Your task to perform on an android device: Open display settings Image 0: 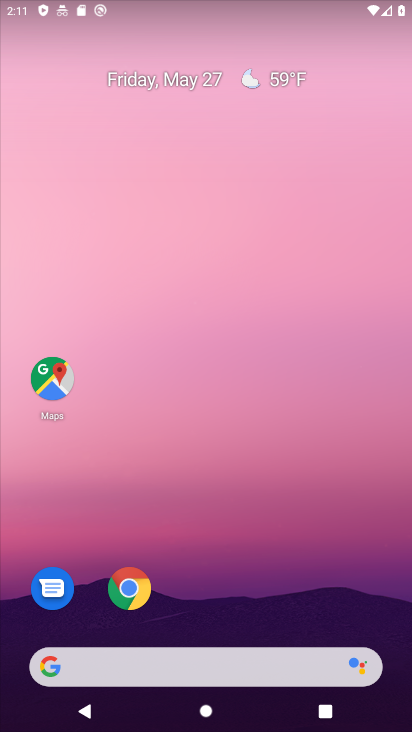
Step 0: drag from (241, 235) to (208, 91)
Your task to perform on an android device: Open display settings Image 1: 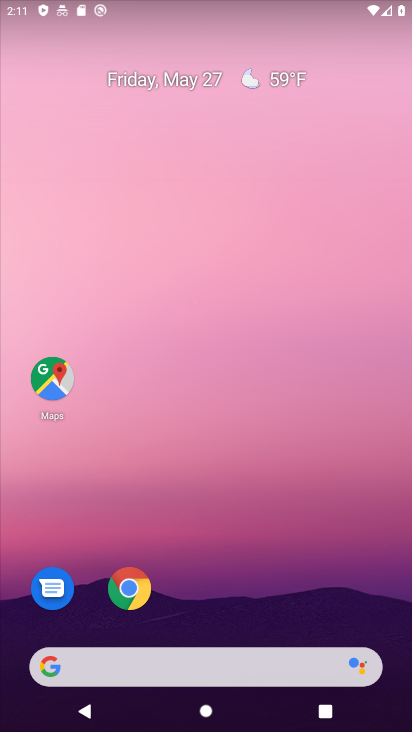
Step 1: drag from (256, 685) to (203, 71)
Your task to perform on an android device: Open display settings Image 2: 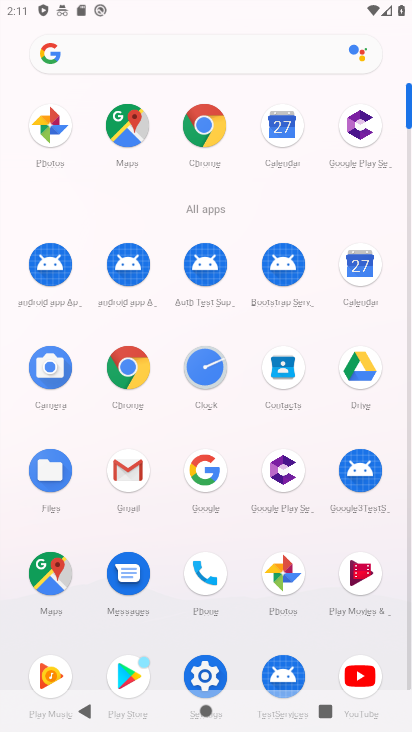
Step 2: drag from (278, 510) to (220, 110)
Your task to perform on an android device: Open display settings Image 3: 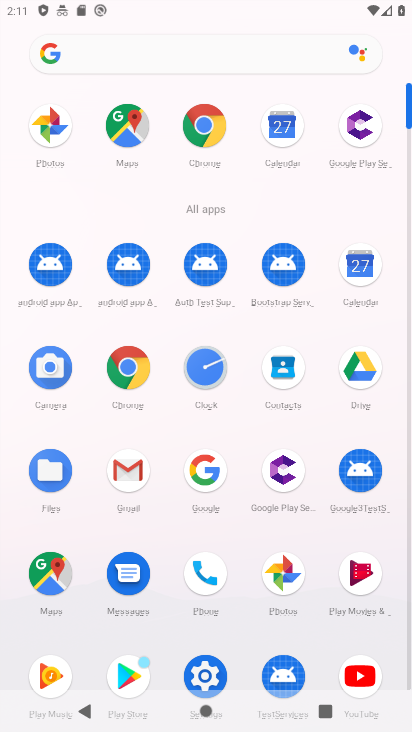
Step 3: drag from (257, 504) to (271, 123)
Your task to perform on an android device: Open display settings Image 4: 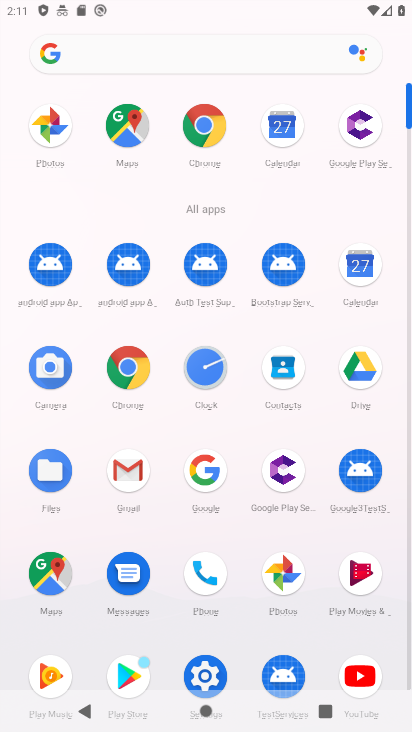
Step 4: click (246, 123)
Your task to perform on an android device: Open display settings Image 5: 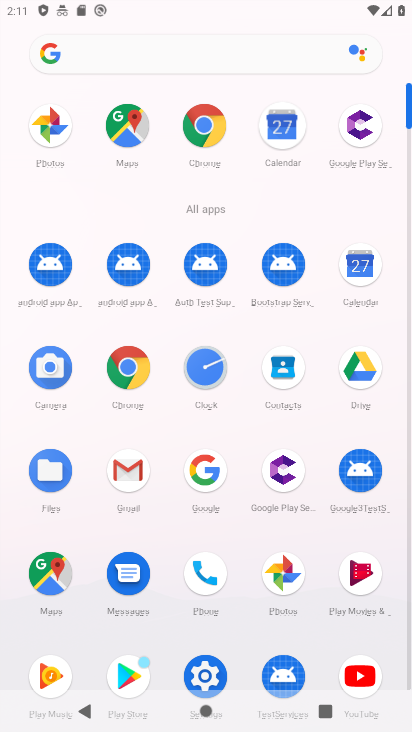
Step 5: drag from (228, 387) to (210, 208)
Your task to perform on an android device: Open display settings Image 6: 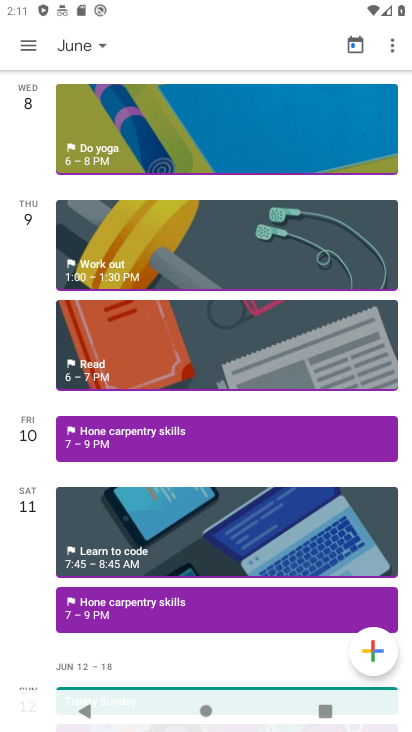
Step 6: press back button
Your task to perform on an android device: Open display settings Image 7: 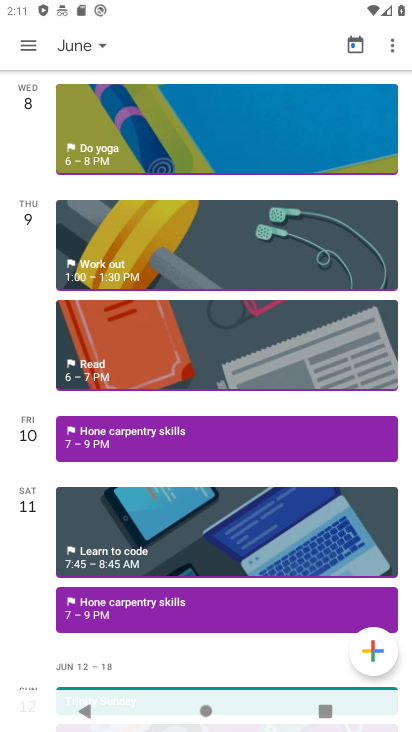
Step 7: press back button
Your task to perform on an android device: Open display settings Image 8: 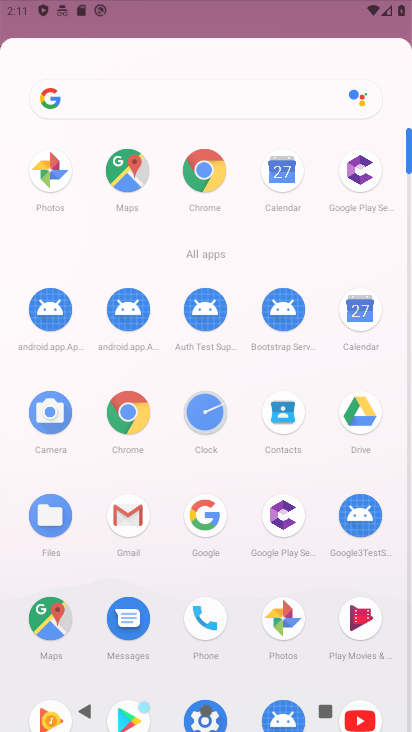
Step 8: press back button
Your task to perform on an android device: Open display settings Image 9: 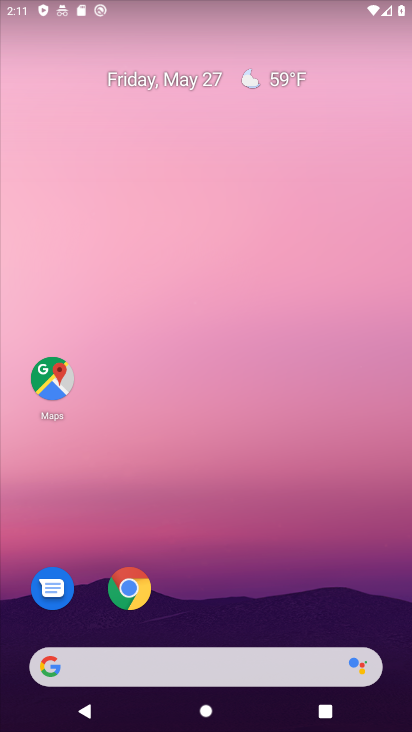
Step 9: drag from (250, 657) to (155, 19)
Your task to perform on an android device: Open display settings Image 10: 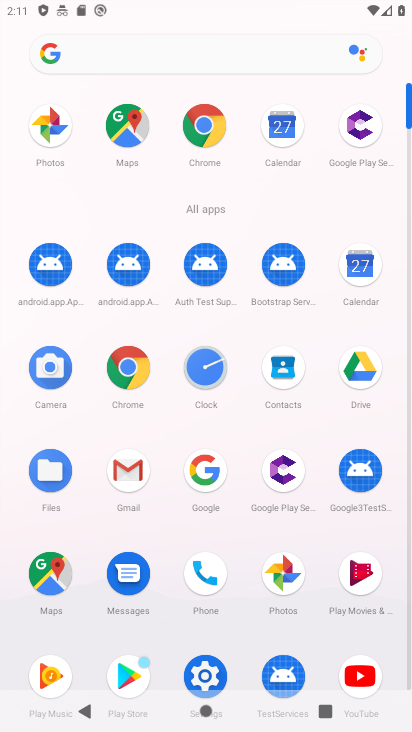
Step 10: click (206, 660)
Your task to perform on an android device: Open display settings Image 11: 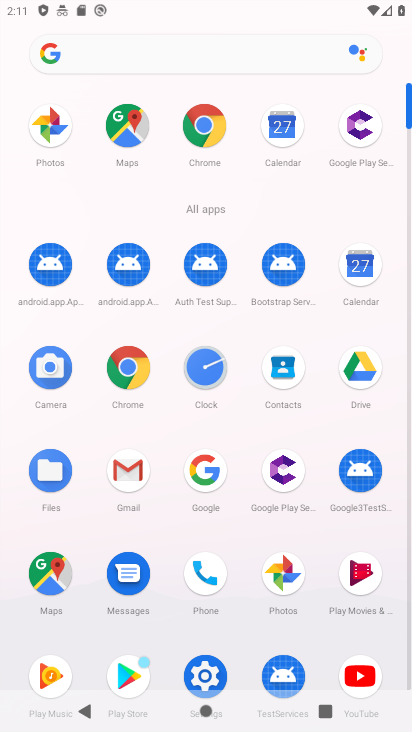
Step 11: click (206, 660)
Your task to perform on an android device: Open display settings Image 12: 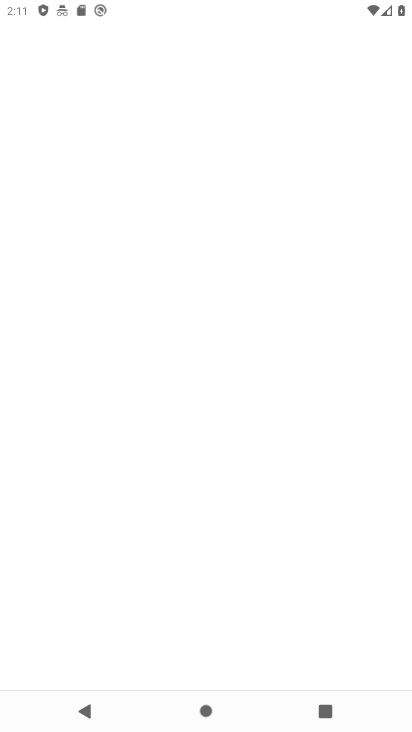
Step 12: click (205, 660)
Your task to perform on an android device: Open display settings Image 13: 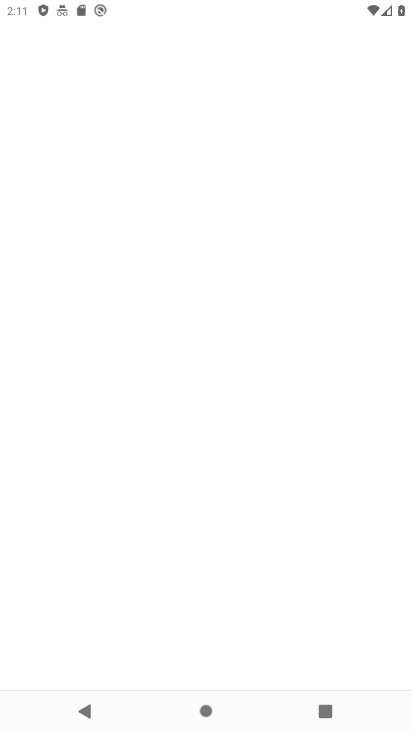
Step 13: click (208, 662)
Your task to perform on an android device: Open display settings Image 14: 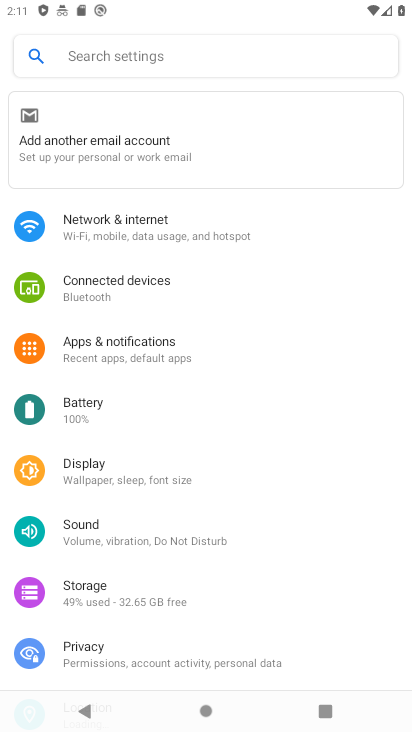
Step 14: drag from (120, 562) to (144, 336)
Your task to perform on an android device: Open display settings Image 15: 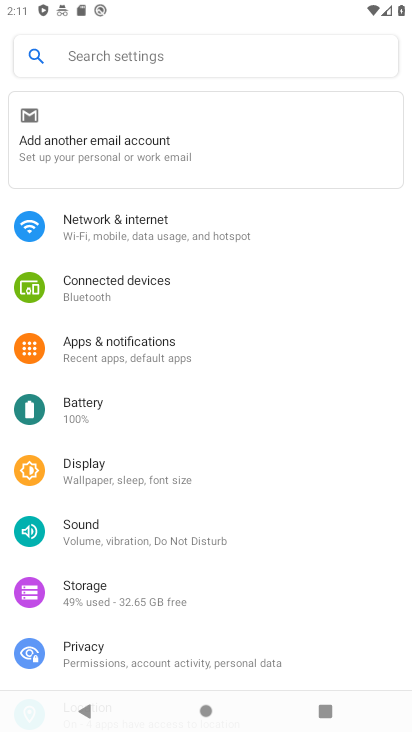
Step 15: drag from (153, 485) to (118, 141)
Your task to perform on an android device: Open display settings Image 16: 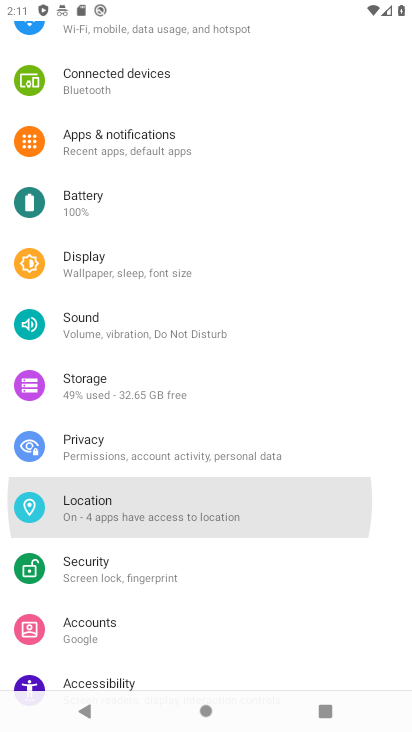
Step 16: drag from (121, 508) to (106, 135)
Your task to perform on an android device: Open display settings Image 17: 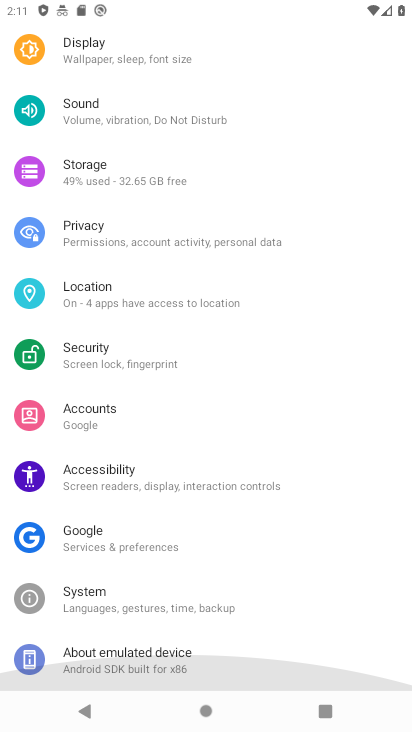
Step 17: drag from (130, 576) to (127, 178)
Your task to perform on an android device: Open display settings Image 18: 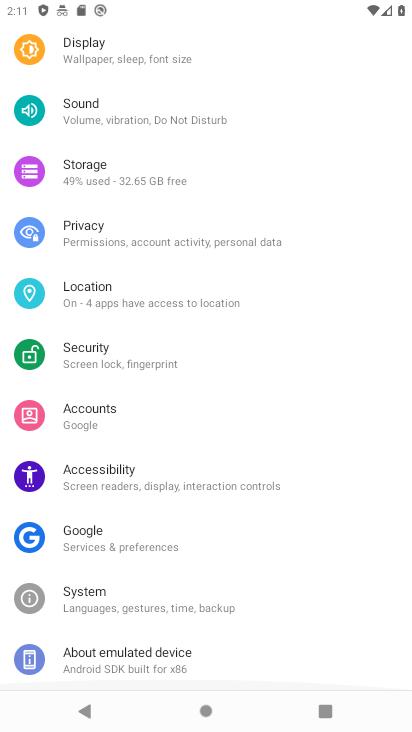
Step 18: drag from (158, 399) to (172, 274)
Your task to perform on an android device: Open display settings Image 19: 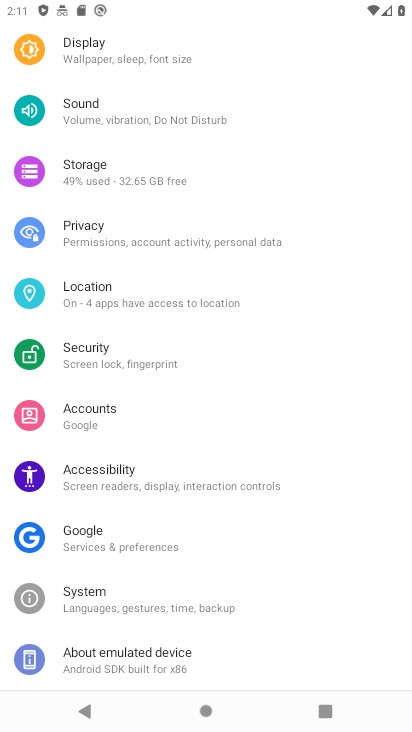
Step 19: drag from (179, 475) to (171, 154)
Your task to perform on an android device: Open display settings Image 20: 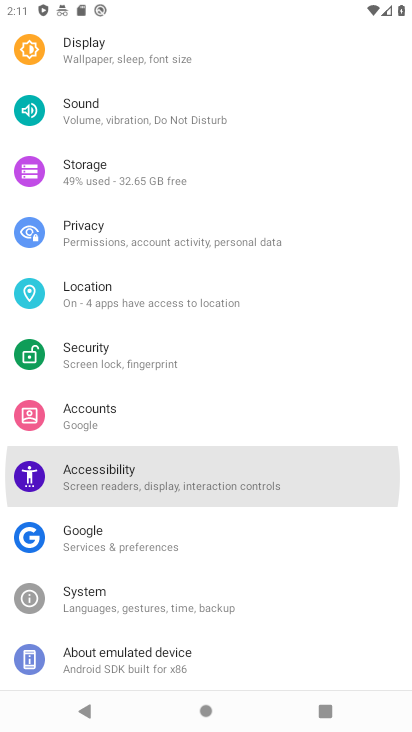
Step 20: drag from (184, 495) to (114, 155)
Your task to perform on an android device: Open display settings Image 21: 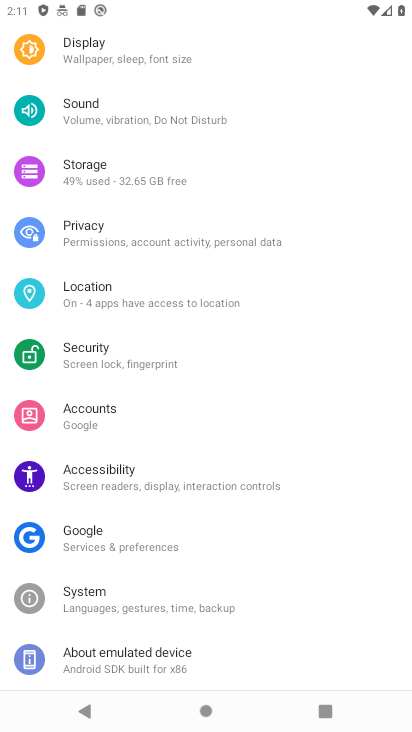
Step 21: click (125, 136)
Your task to perform on an android device: Open display settings Image 22: 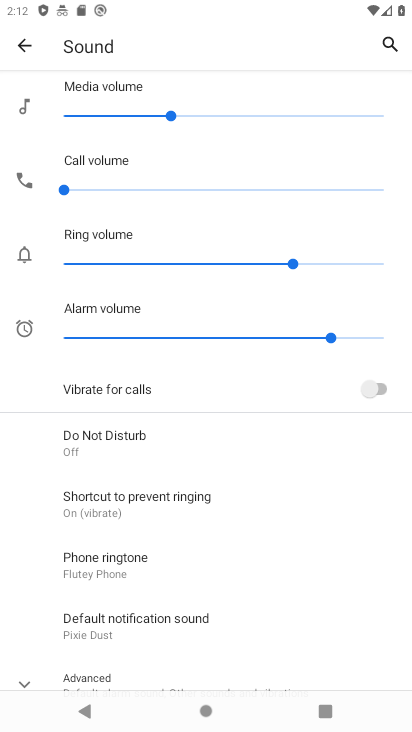
Step 22: drag from (199, 443) to (219, 177)
Your task to perform on an android device: Open display settings Image 23: 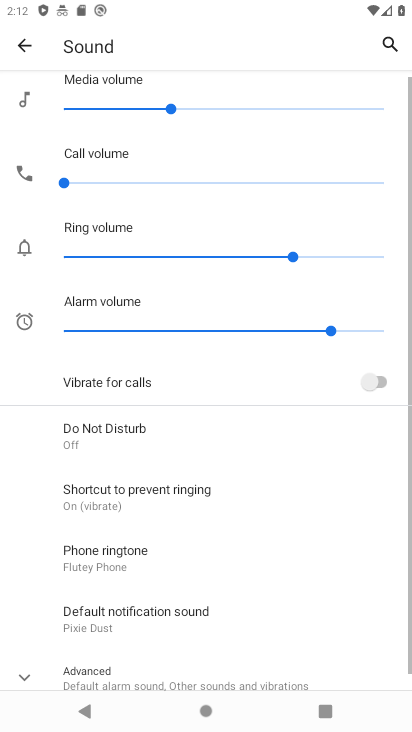
Step 23: drag from (188, 327) to (160, 160)
Your task to perform on an android device: Open display settings Image 24: 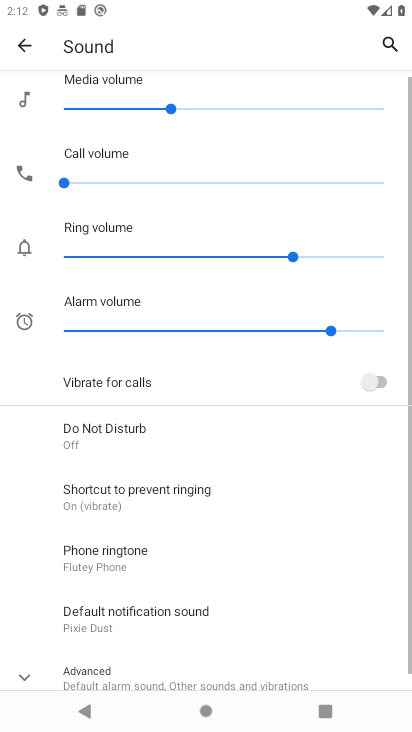
Step 24: drag from (164, 502) to (166, 75)
Your task to perform on an android device: Open display settings Image 25: 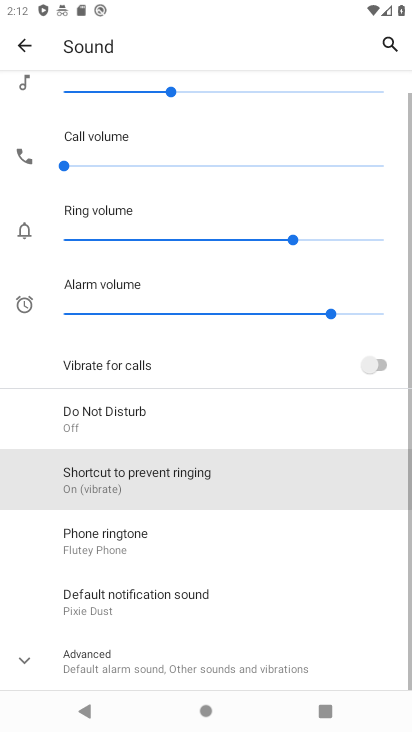
Step 25: drag from (208, 522) to (219, 23)
Your task to perform on an android device: Open display settings Image 26: 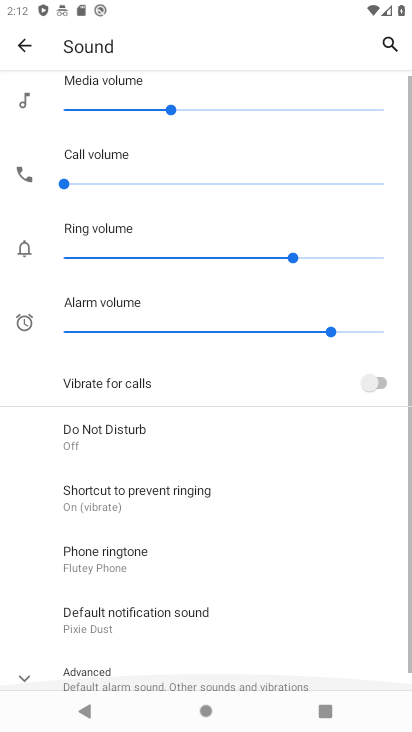
Step 26: drag from (207, 577) to (168, 19)
Your task to perform on an android device: Open display settings Image 27: 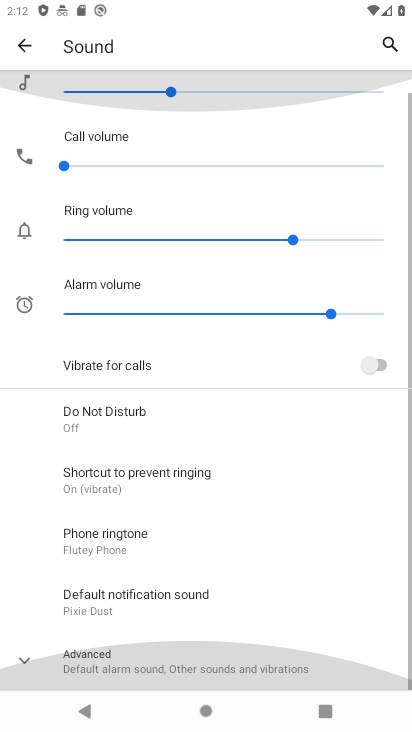
Step 27: drag from (184, 641) to (144, 34)
Your task to perform on an android device: Open display settings Image 28: 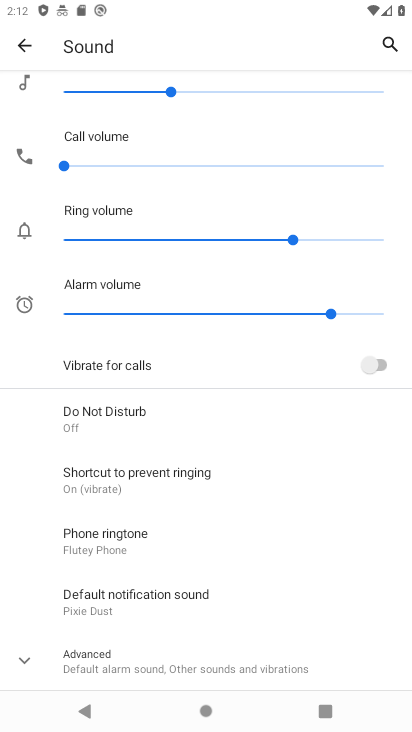
Step 28: click (138, 543)
Your task to perform on an android device: Open display settings Image 29: 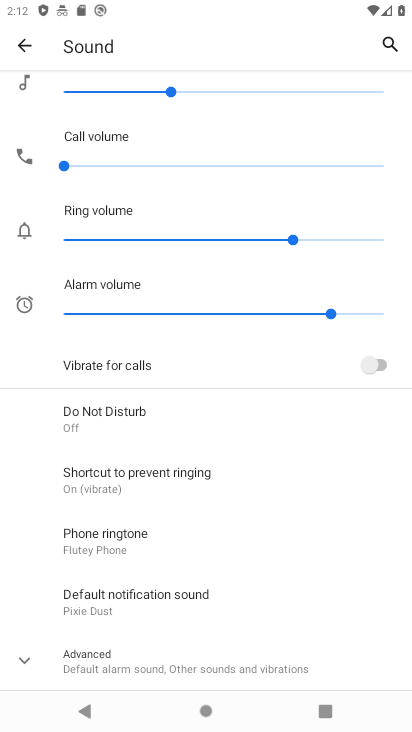
Step 29: drag from (94, 301) to (157, 606)
Your task to perform on an android device: Open display settings Image 30: 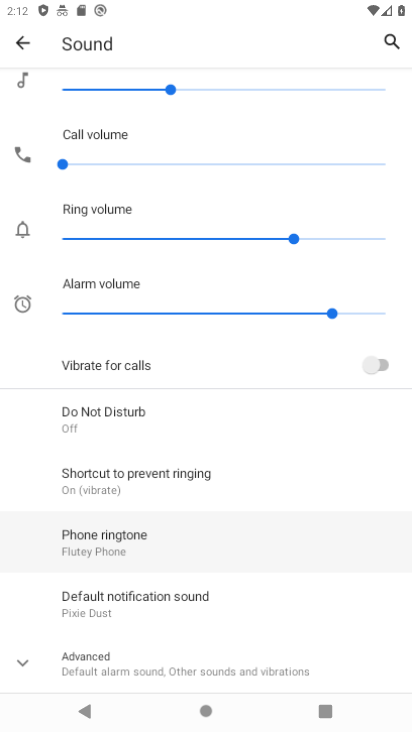
Step 30: click (205, 672)
Your task to perform on an android device: Open display settings Image 31: 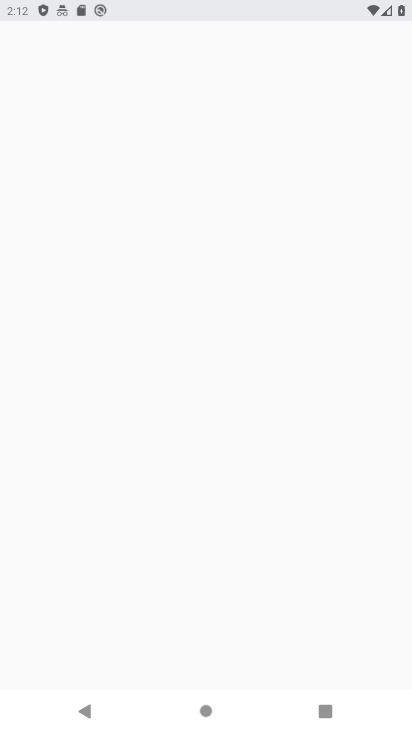
Step 31: click (160, 655)
Your task to perform on an android device: Open display settings Image 32: 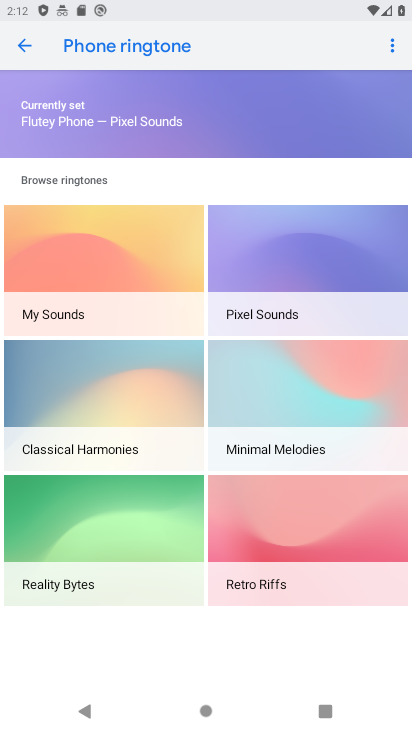
Step 32: click (27, 43)
Your task to perform on an android device: Open display settings Image 33: 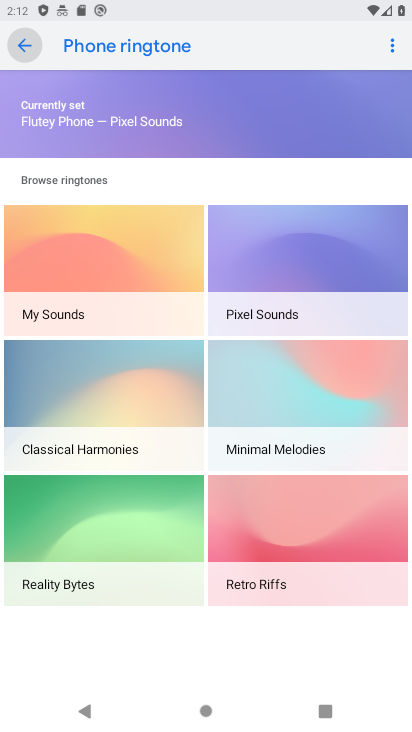
Step 33: click (27, 43)
Your task to perform on an android device: Open display settings Image 34: 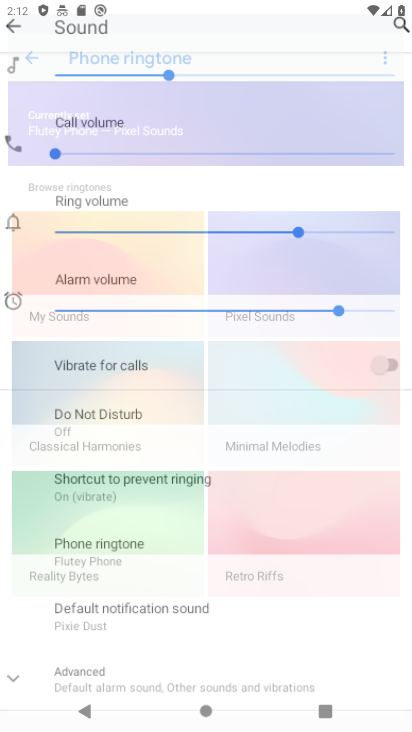
Step 34: click (26, 44)
Your task to perform on an android device: Open display settings Image 35: 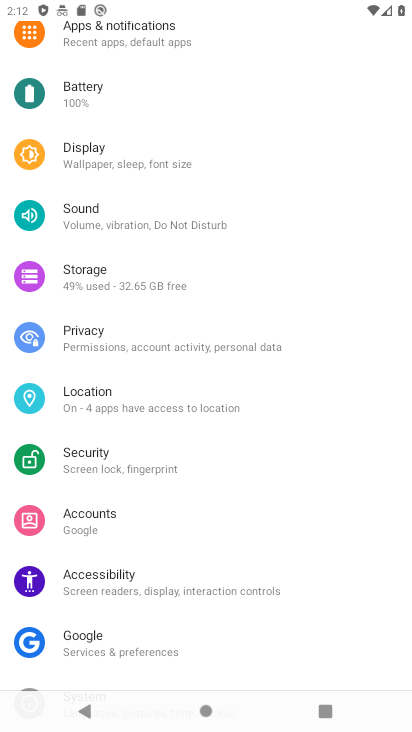
Step 35: click (82, 154)
Your task to perform on an android device: Open display settings Image 36: 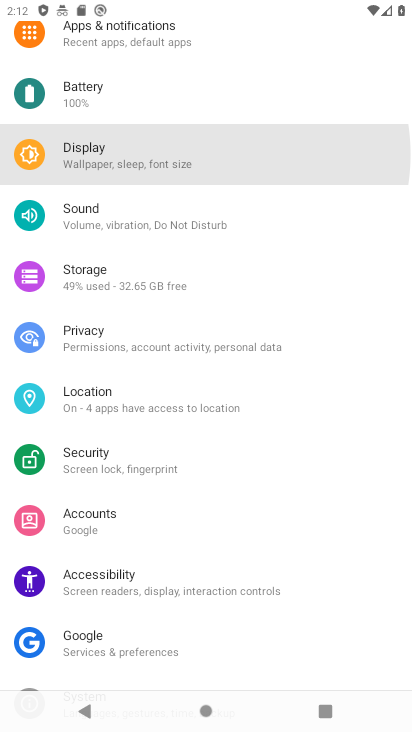
Step 36: click (88, 159)
Your task to perform on an android device: Open display settings Image 37: 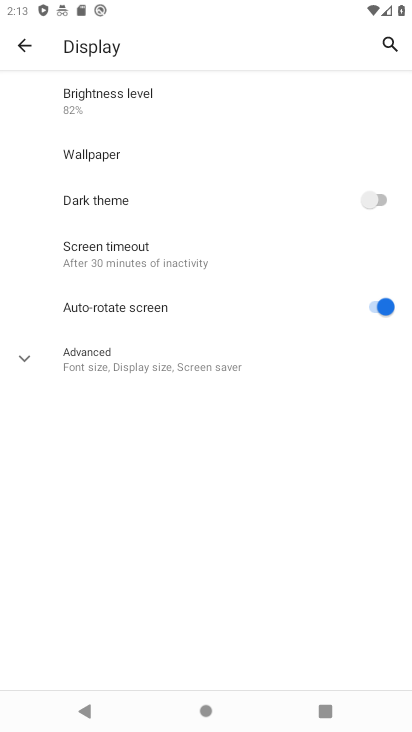
Step 37: click (102, 158)
Your task to perform on an android device: Open display settings Image 38: 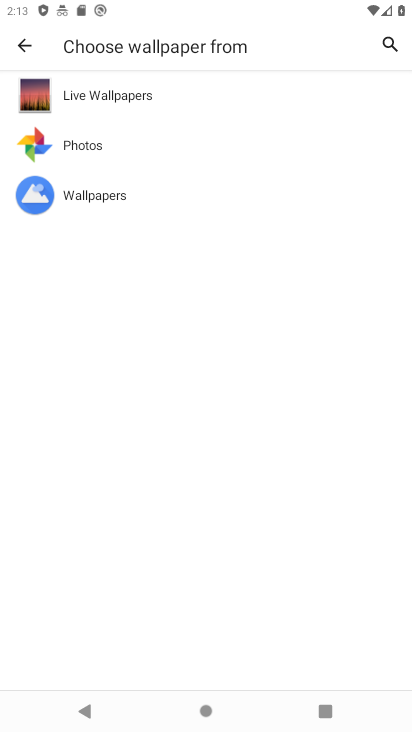
Step 38: click (22, 39)
Your task to perform on an android device: Open display settings Image 39: 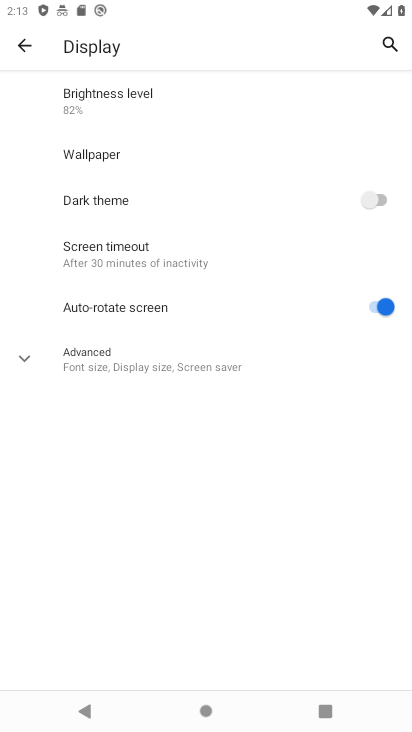
Step 39: task complete